Your task to perform on an android device: allow cookies in the chrome app Image 0: 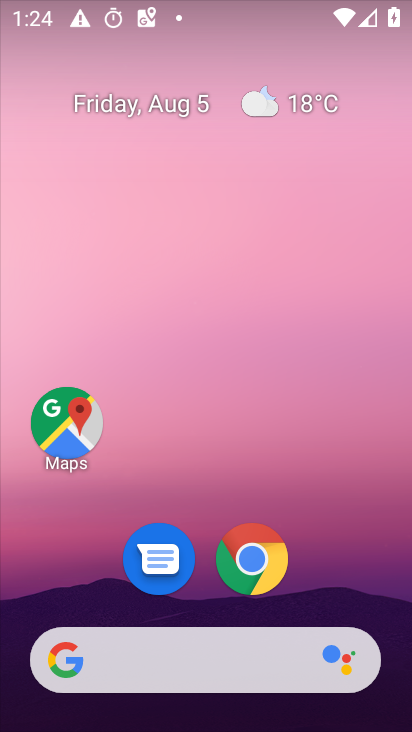
Step 0: click (234, 547)
Your task to perform on an android device: allow cookies in the chrome app Image 1: 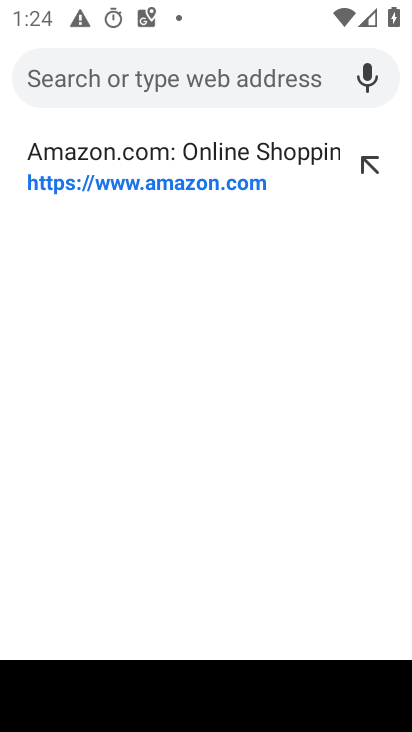
Step 1: task complete